Your task to perform on an android device: check storage Image 0: 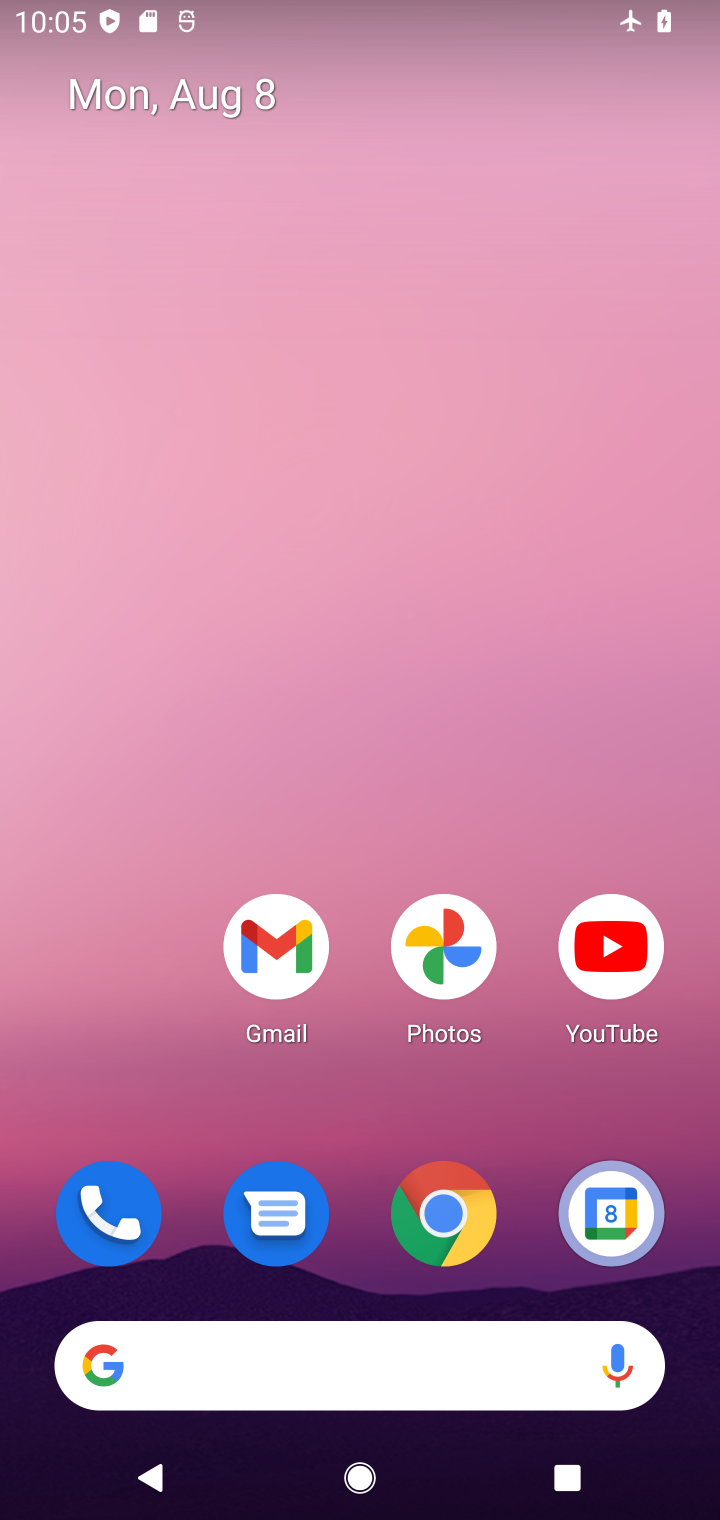
Step 0: drag from (336, 952) to (334, 69)
Your task to perform on an android device: check storage Image 1: 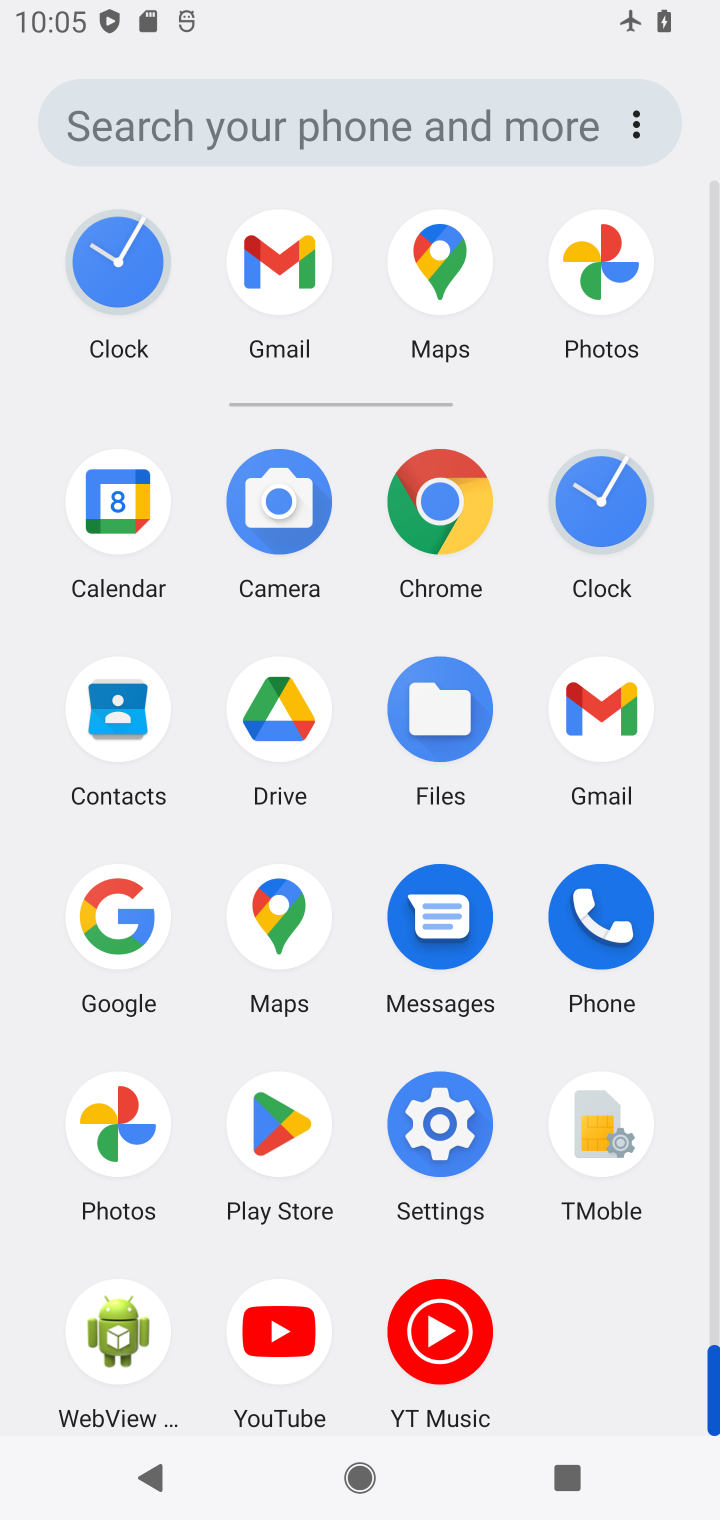
Step 1: click (433, 1099)
Your task to perform on an android device: check storage Image 2: 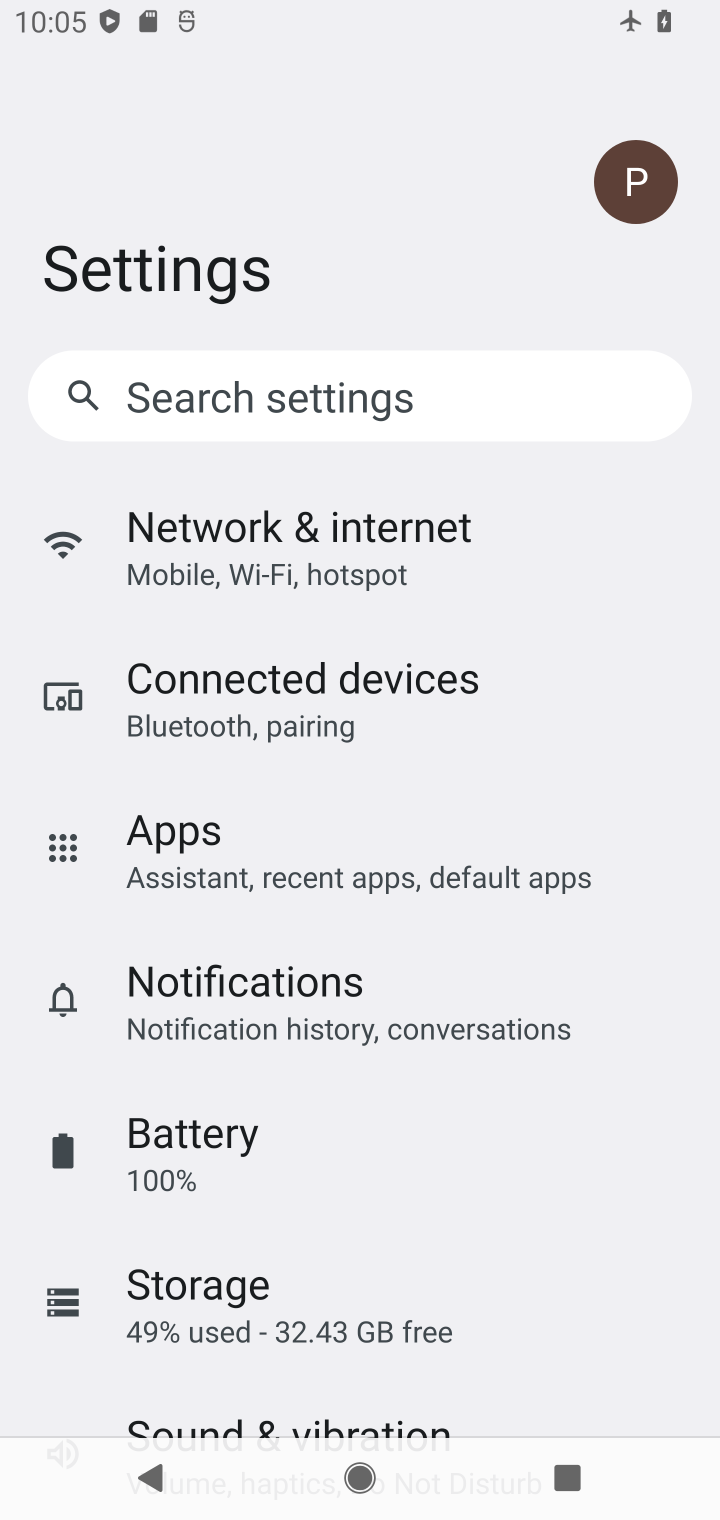
Step 2: click (329, 1306)
Your task to perform on an android device: check storage Image 3: 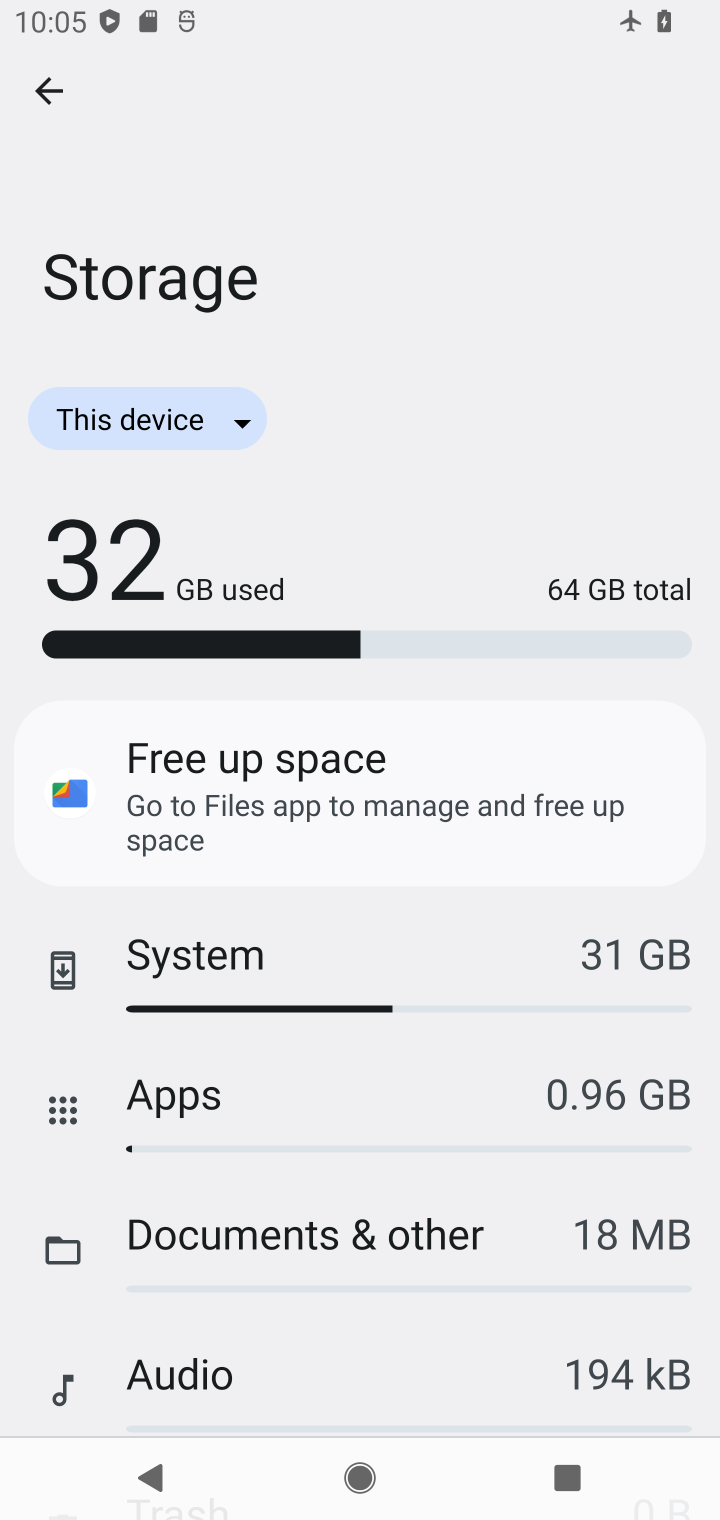
Step 3: task complete